Your task to perform on an android device: Go to calendar. Show me events next week Image 0: 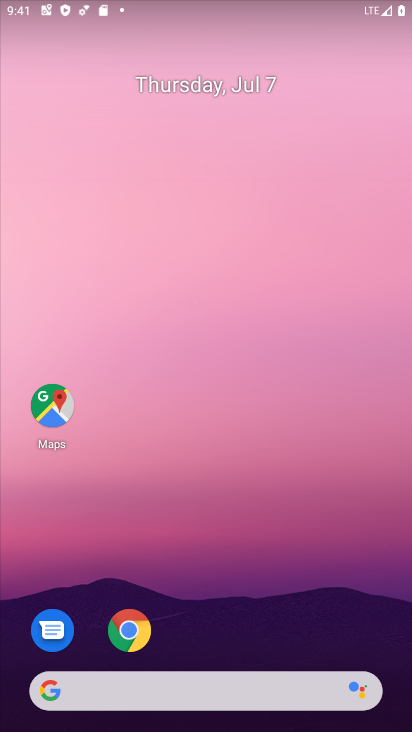
Step 0: drag from (200, 635) to (171, 182)
Your task to perform on an android device: Go to calendar. Show me events next week Image 1: 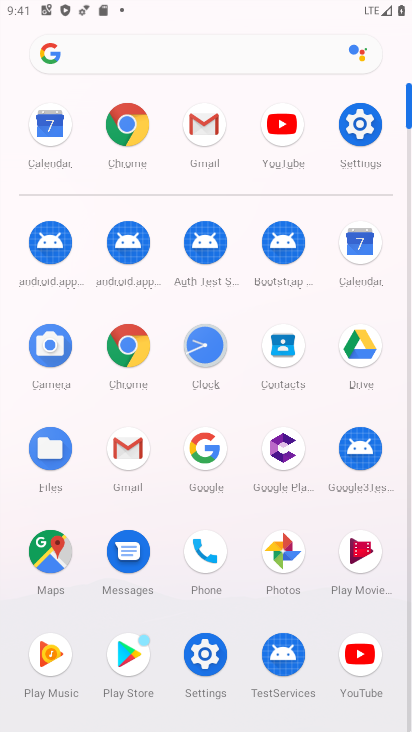
Step 1: click (370, 271)
Your task to perform on an android device: Go to calendar. Show me events next week Image 2: 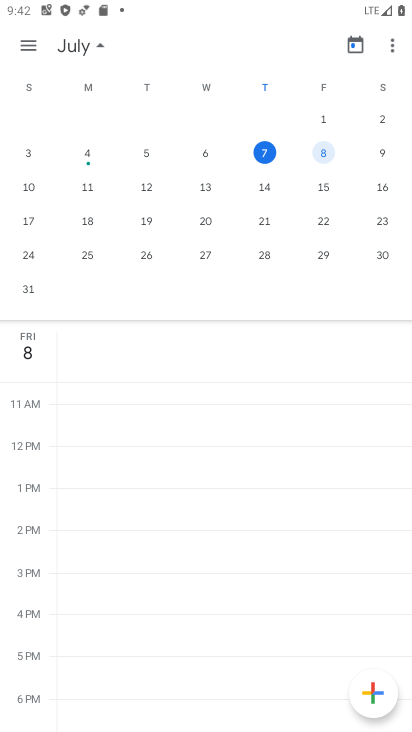
Step 2: click (27, 182)
Your task to perform on an android device: Go to calendar. Show me events next week Image 3: 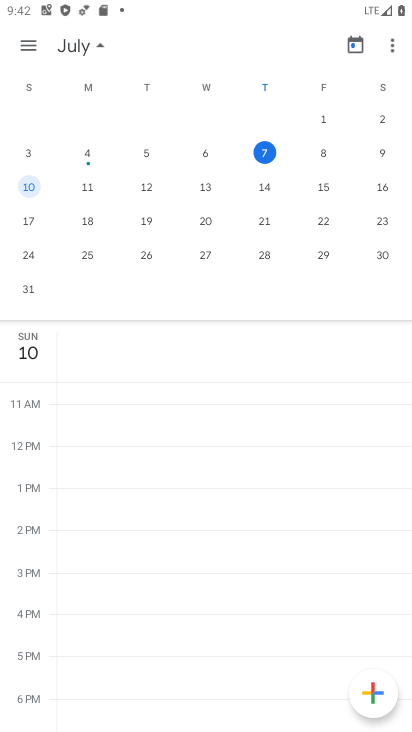
Step 3: click (84, 191)
Your task to perform on an android device: Go to calendar. Show me events next week Image 4: 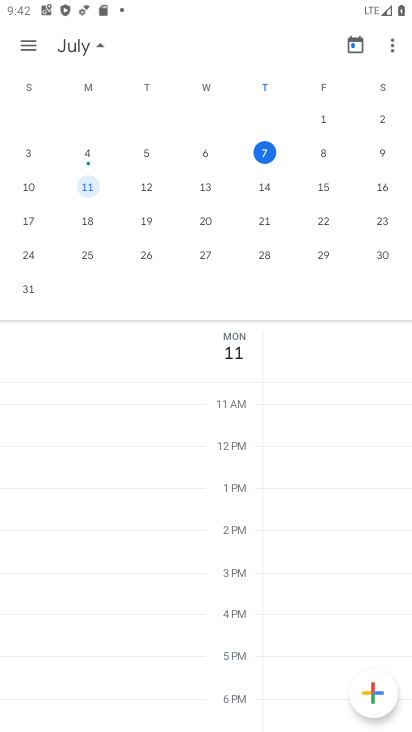
Step 4: click (28, 47)
Your task to perform on an android device: Go to calendar. Show me events next week Image 5: 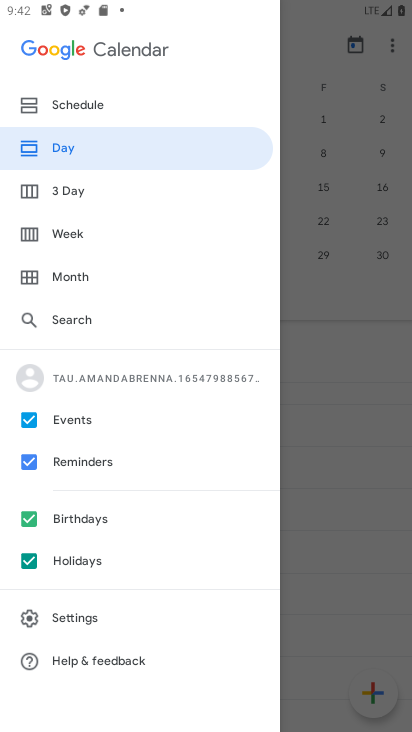
Step 5: click (111, 108)
Your task to perform on an android device: Go to calendar. Show me events next week Image 6: 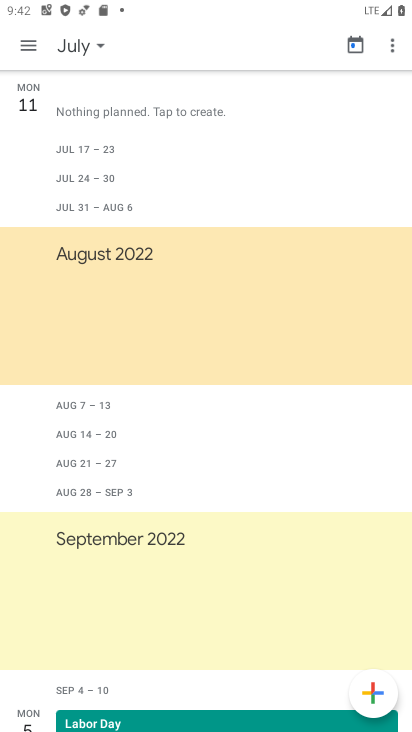
Step 6: task complete